Your task to perform on an android device: Go to accessibility settings Image 0: 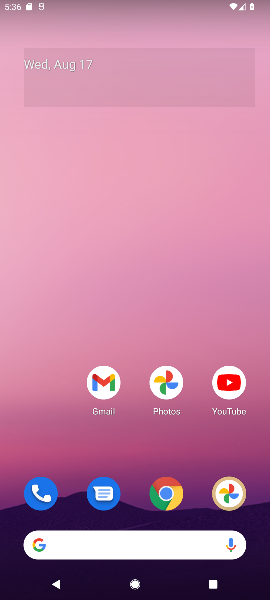
Step 0: press home button
Your task to perform on an android device: Go to accessibility settings Image 1: 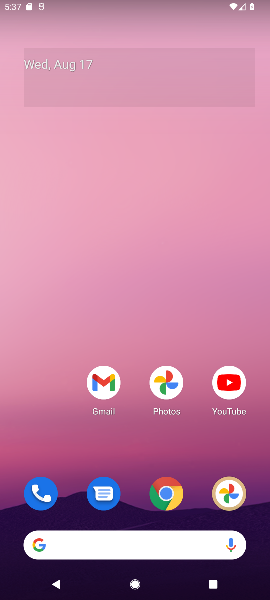
Step 1: drag from (127, 504) to (116, 177)
Your task to perform on an android device: Go to accessibility settings Image 2: 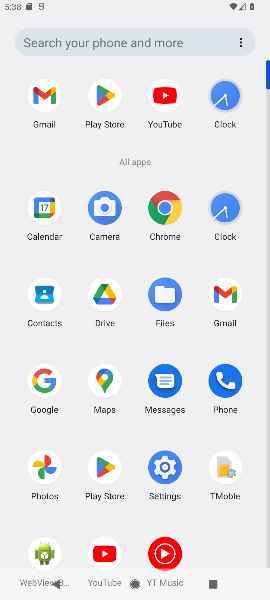
Step 2: click (174, 469)
Your task to perform on an android device: Go to accessibility settings Image 3: 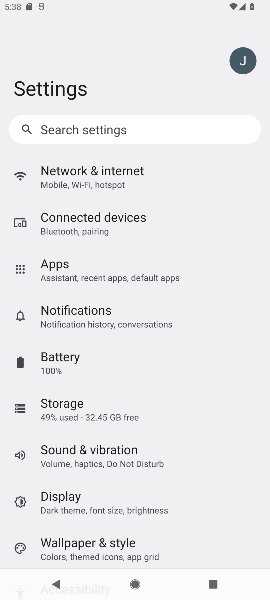
Step 3: drag from (242, 528) to (250, 107)
Your task to perform on an android device: Go to accessibility settings Image 4: 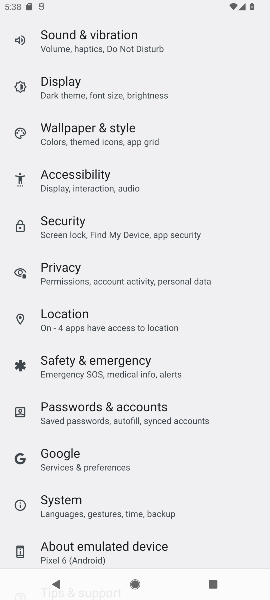
Step 4: click (72, 179)
Your task to perform on an android device: Go to accessibility settings Image 5: 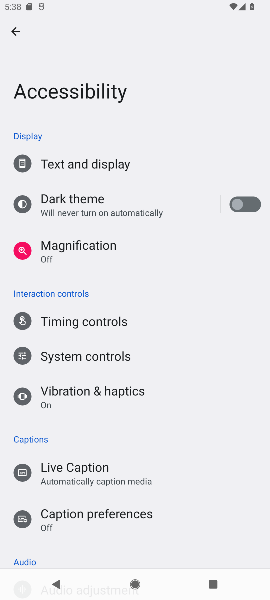
Step 5: task complete